Your task to perform on an android device: Is it going to rain this weekend? Image 0: 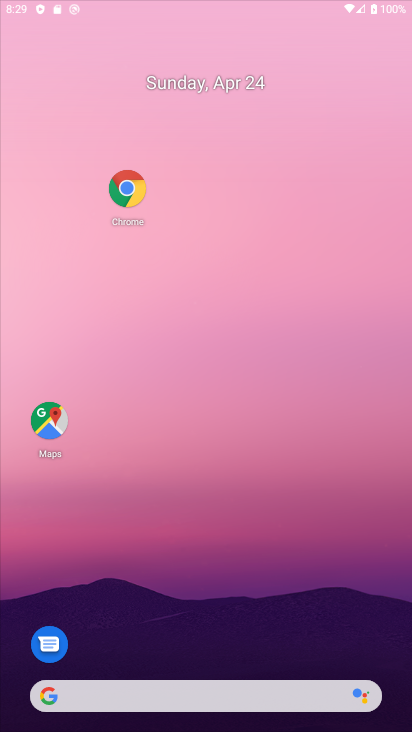
Step 0: drag from (289, 4) to (366, 7)
Your task to perform on an android device: Is it going to rain this weekend? Image 1: 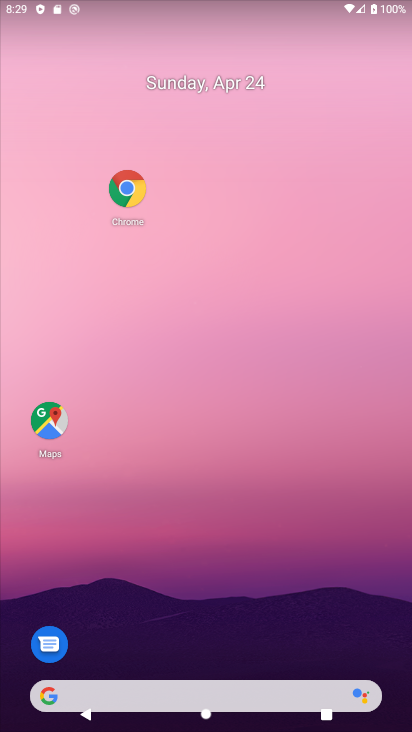
Step 1: drag from (185, 633) to (248, 72)
Your task to perform on an android device: Is it going to rain this weekend? Image 2: 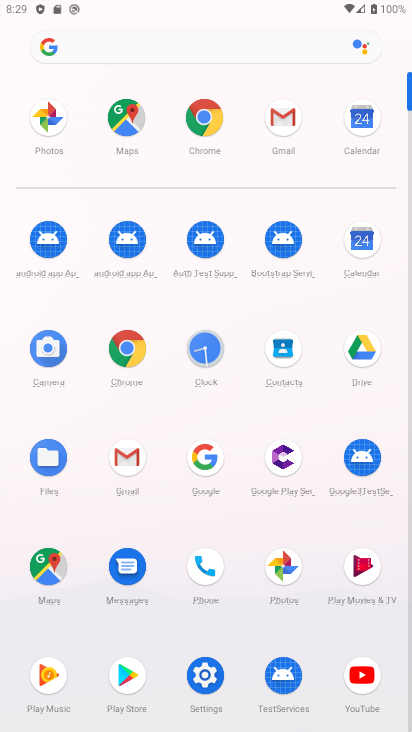
Step 2: click (205, 454)
Your task to perform on an android device: Is it going to rain this weekend? Image 3: 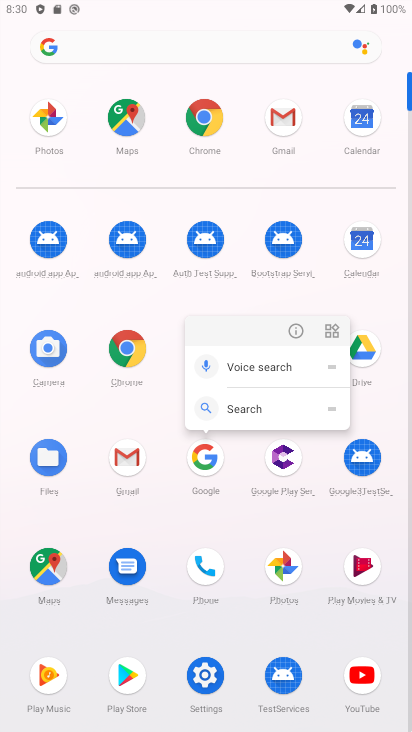
Step 3: click (295, 332)
Your task to perform on an android device: Is it going to rain this weekend? Image 4: 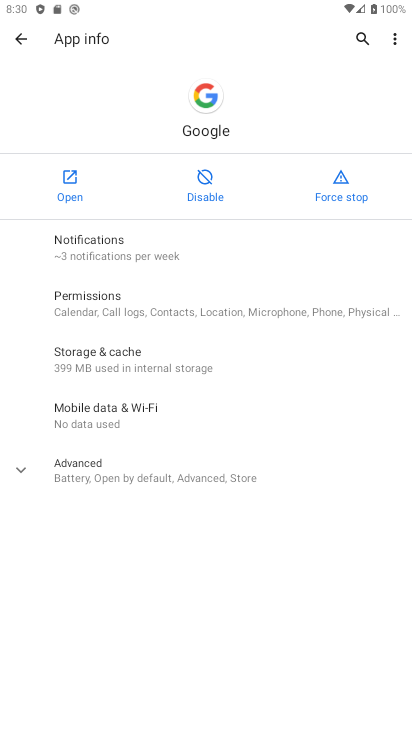
Step 4: click (61, 182)
Your task to perform on an android device: Is it going to rain this weekend? Image 5: 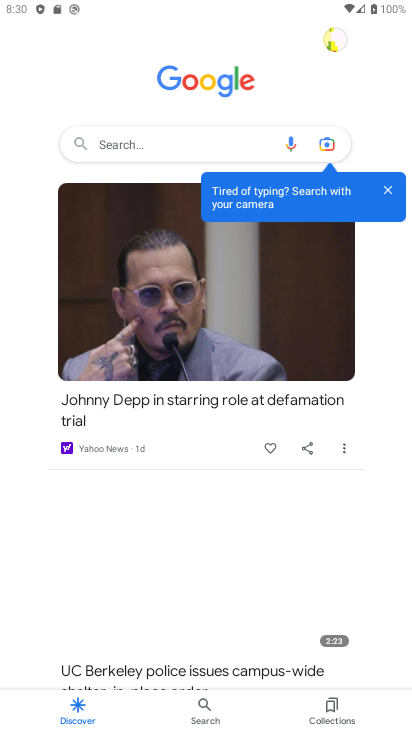
Step 5: click (129, 145)
Your task to perform on an android device: Is it going to rain this weekend? Image 6: 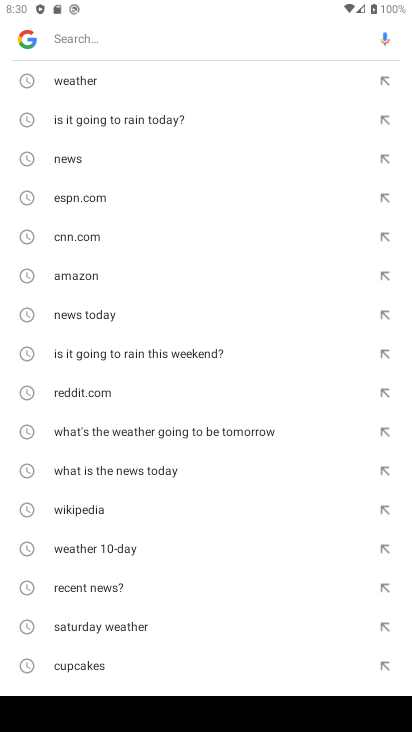
Step 6: click (159, 351)
Your task to perform on an android device: Is it going to rain this weekend? Image 7: 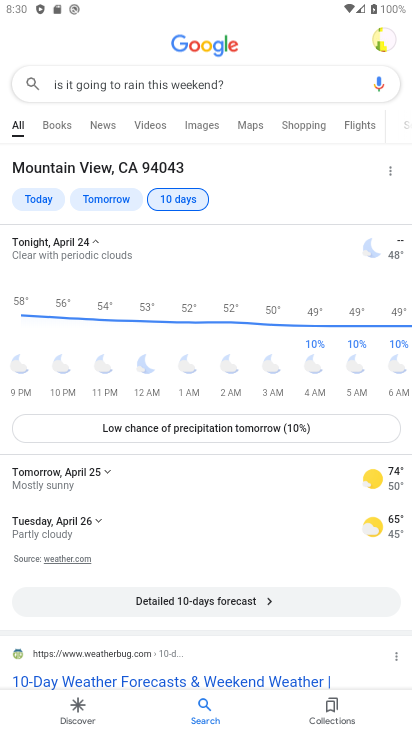
Step 7: task complete